Your task to perform on an android device: change text size in settings app Image 0: 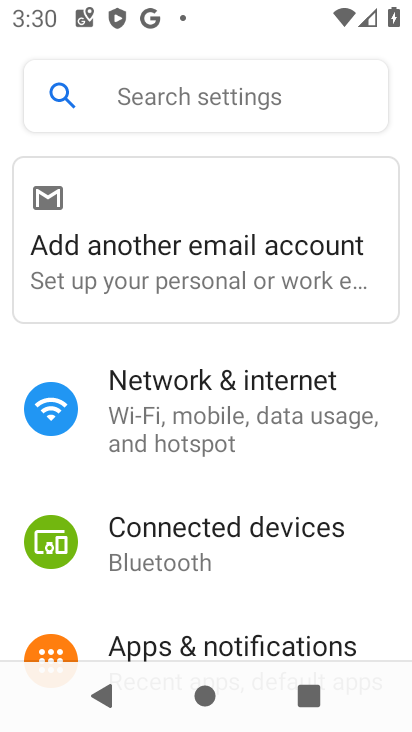
Step 0: click (169, 95)
Your task to perform on an android device: change text size in settings app Image 1: 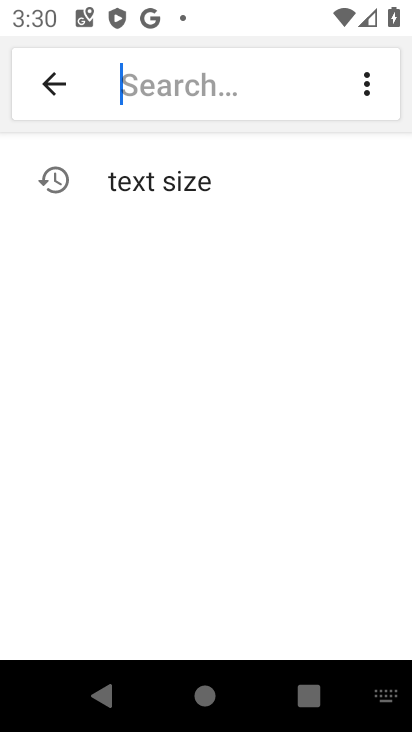
Step 1: type "text"
Your task to perform on an android device: change text size in settings app Image 2: 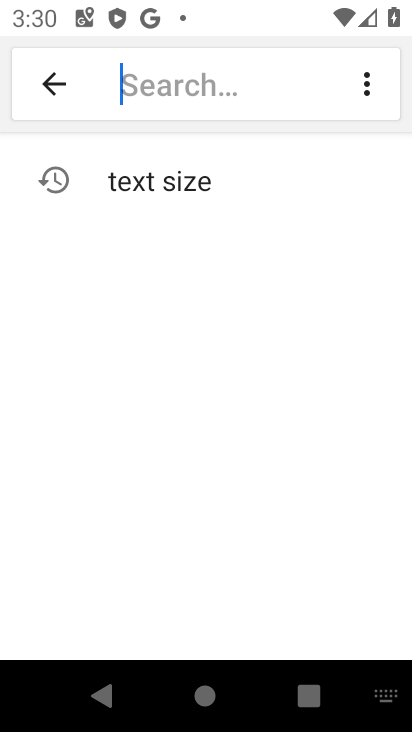
Step 2: click (200, 193)
Your task to perform on an android device: change text size in settings app Image 3: 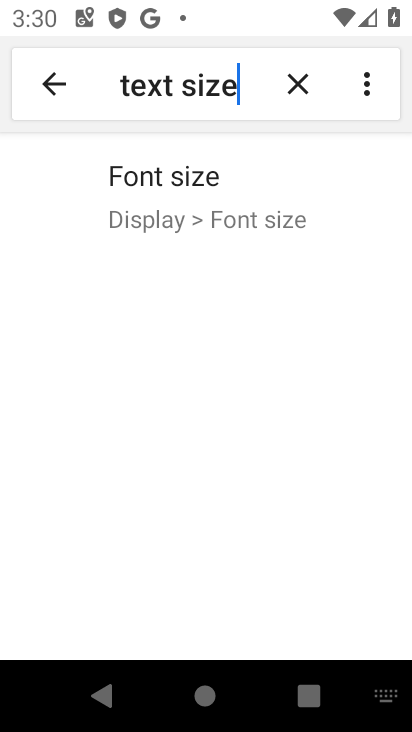
Step 3: click (239, 202)
Your task to perform on an android device: change text size in settings app Image 4: 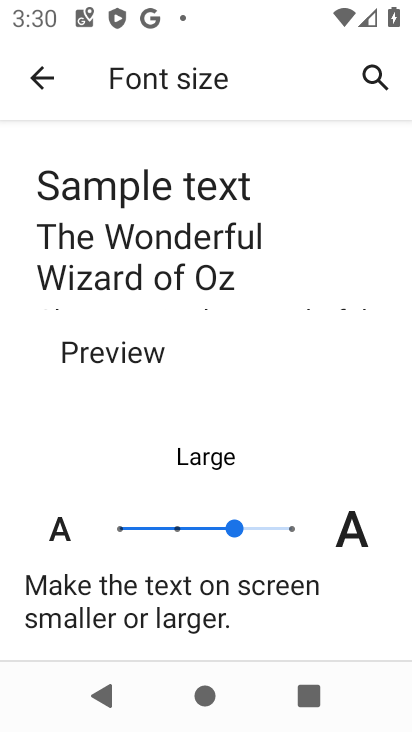
Step 4: task complete